Your task to perform on an android device: change text size in settings app Image 0: 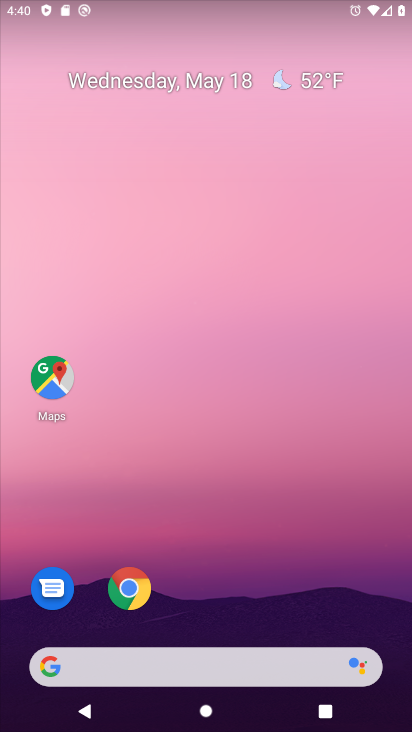
Step 0: drag from (251, 131) to (258, 54)
Your task to perform on an android device: change text size in settings app Image 1: 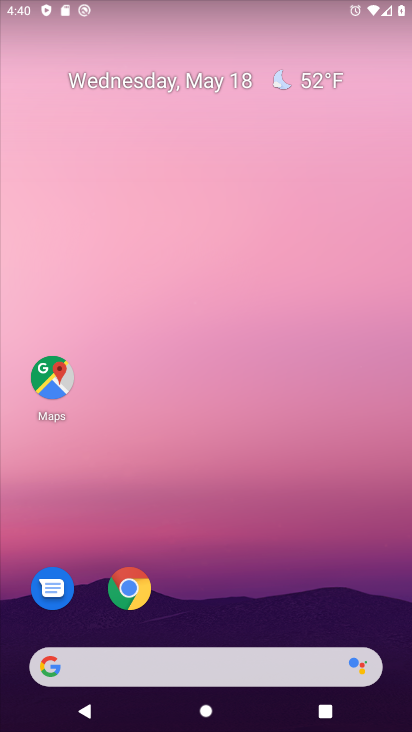
Step 1: drag from (243, 547) to (313, 75)
Your task to perform on an android device: change text size in settings app Image 2: 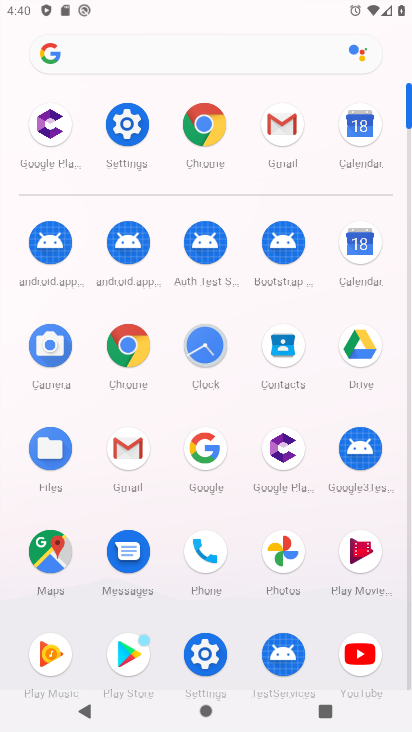
Step 2: click (135, 121)
Your task to perform on an android device: change text size in settings app Image 3: 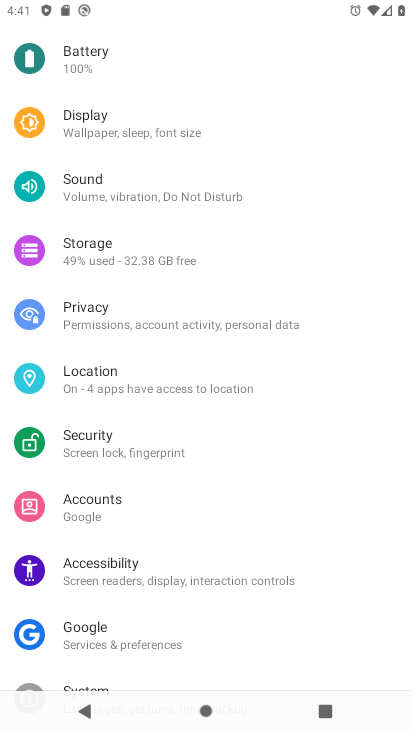
Step 3: click (168, 143)
Your task to perform on an android device: change text size in settings app Image 4: 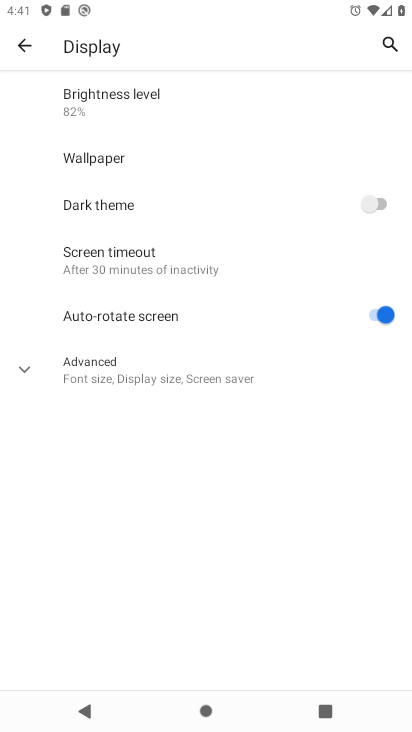
Step 4: click (105, 364)
Your task to perform on an android device: change text size in settings app Image 5: 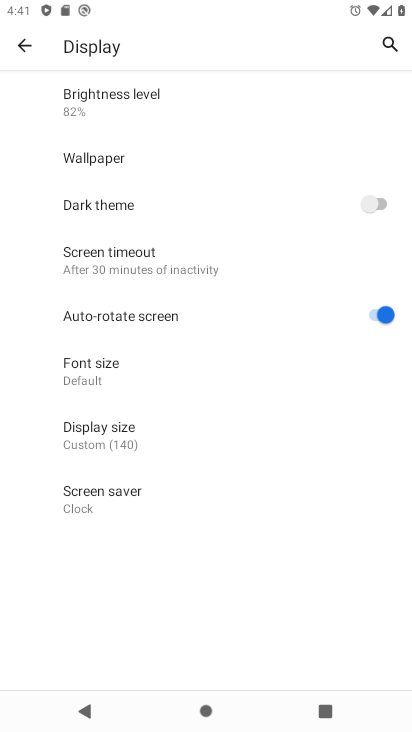
Step 5: click (86, 375)
Your task to perform on an android device: change text size in settings app Image 6: 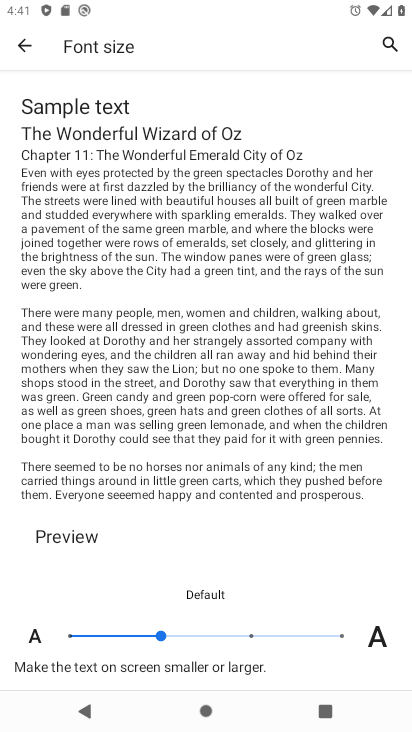
Step 6: click (80, 636)
Your task to perform on an android device: change text size in settings app Image 7: 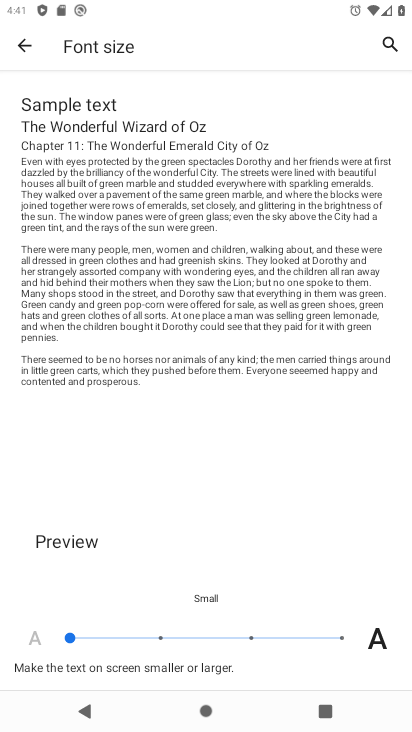
Step 7: task complete